Your task to perform on an android device: open chrome privacy settings Image 0: 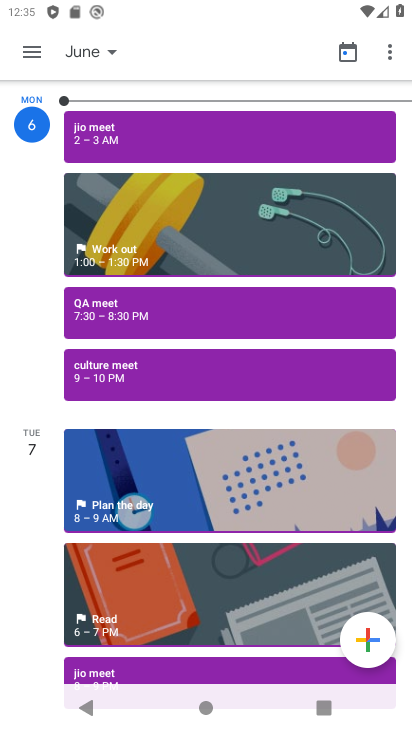
Step 0: press home button
Your task to perform on an android device: open chrome privacy settings Image 1: 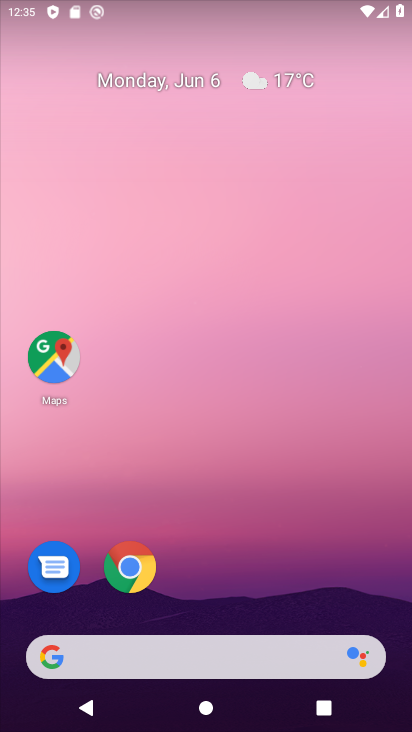
Step 1: drag from (225, 728) to (219, 34)
Your task to perform on an android device: open chrome privacy settings Image 2: 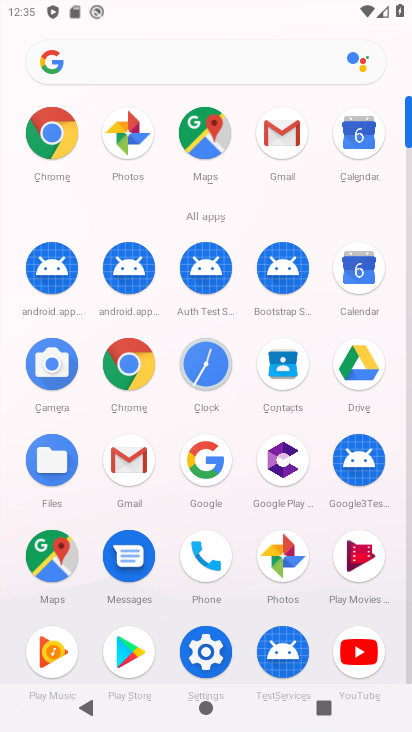
Step 2: click (129, 364)
Your task to perform on an android device: open chrome privacy settings Image 3: 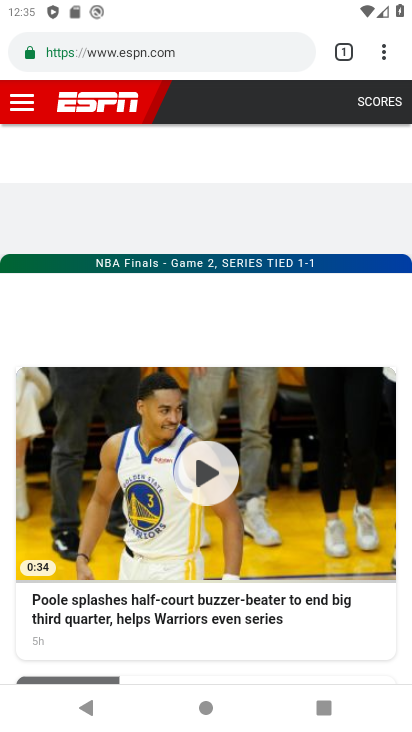
Step 3: click (384, 57)
Your task to perform on an android device: open chrome privacy settings Image 4: 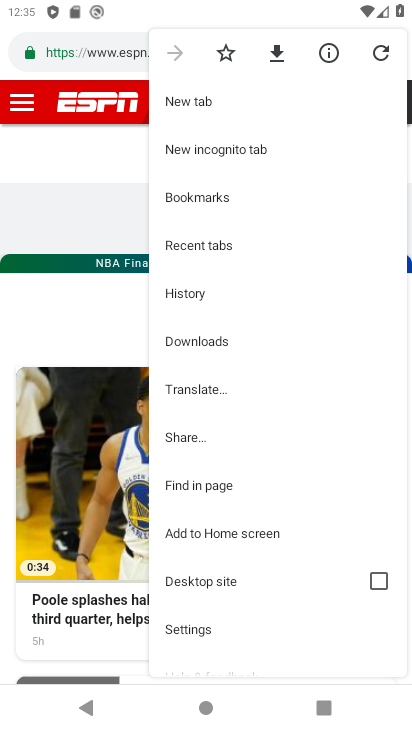
Step 4: click (189, 625)
Your task to perform on an android device: open chrome privacy settings Image 5: 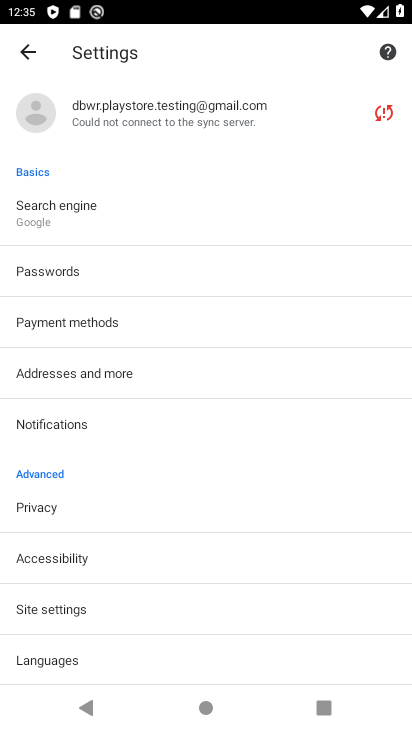
Step 5: click (53, 505)
Your task to perform on an android device: open chrome privacy settings Image 6: 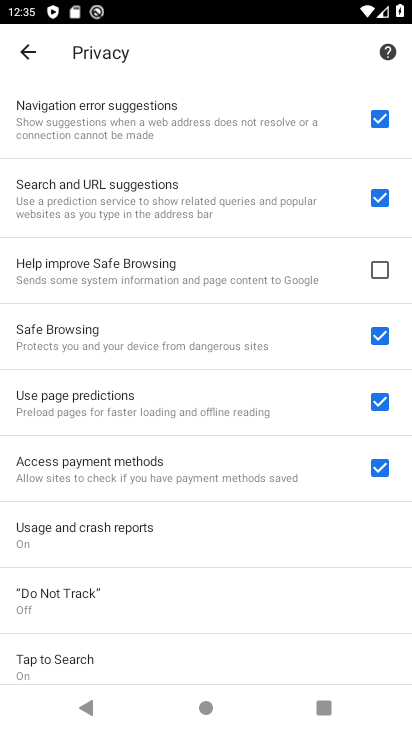
Step 6: task complete